Your task to perform on an android device: check battery use Image 0: 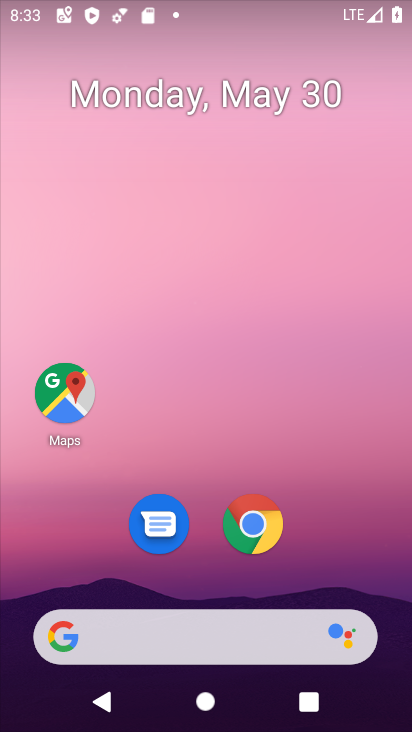
Step 0: drag from (311, 528) to (362, 1)
Your task to perform on an android device: check battery use Image 1: 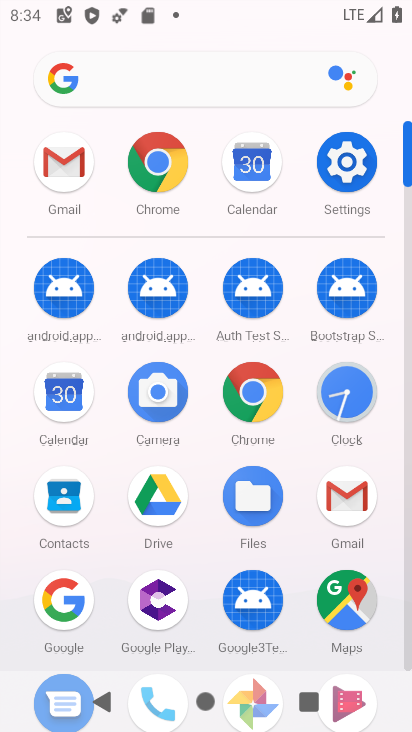
Step 1: click (341, 169)
Your task to perform on an android device: check battery use Image 2: 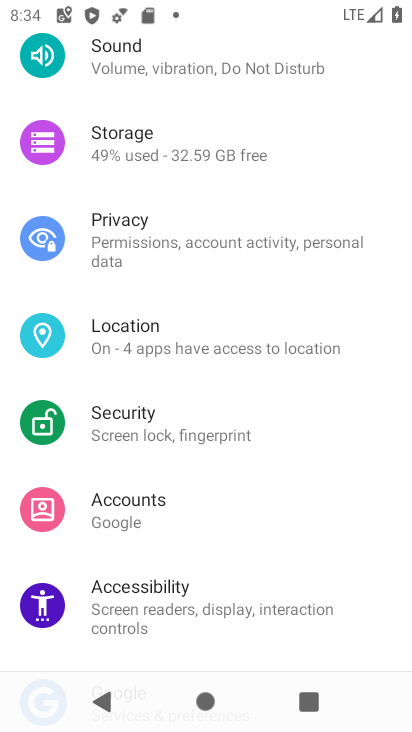
Step 2: drag from (223, 188) to (224, 497)
Your task to perform on an android device: check battery use Image 3: 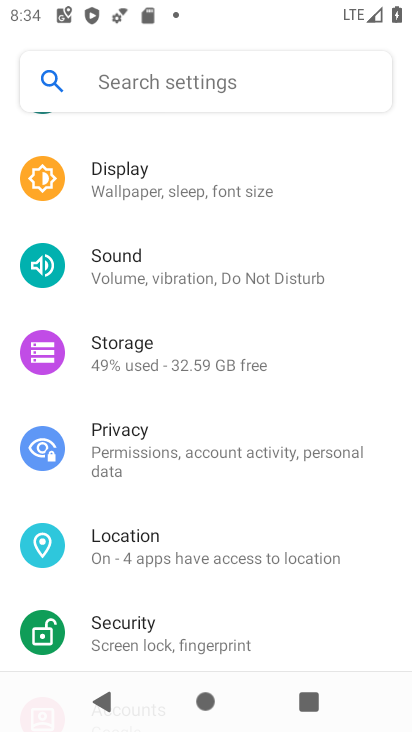
Step 3: drag from (216, 218) to (198, 316)
Your task to perform on an android device: check battery use Image 4: 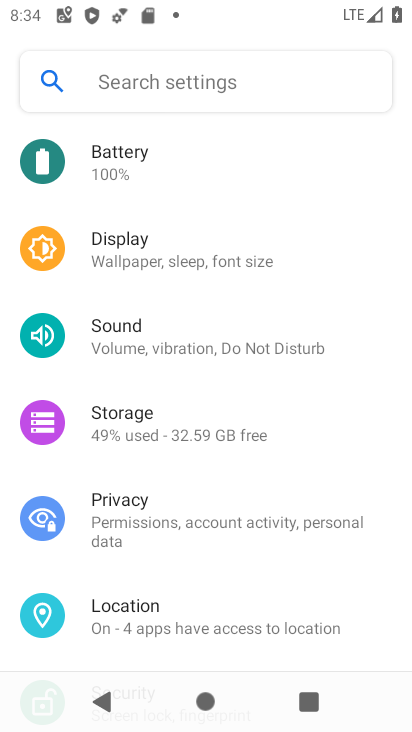
Step 4: click (133, 166)
Your task to perform on an android device: check battery use Image 5: 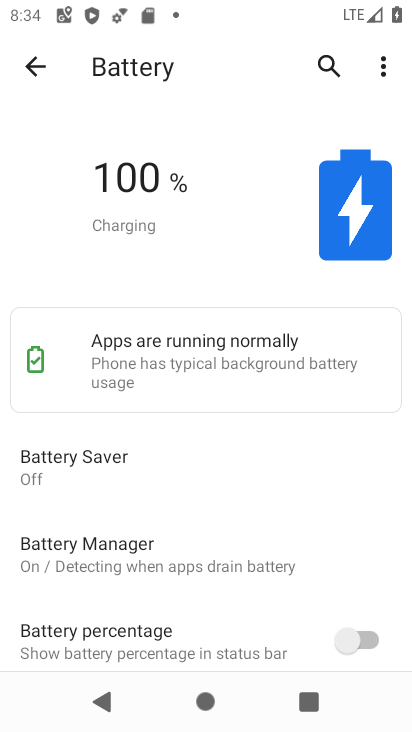
Step 5: click (383, 62)
Your task to perform on an android device: check battery use Image 6: 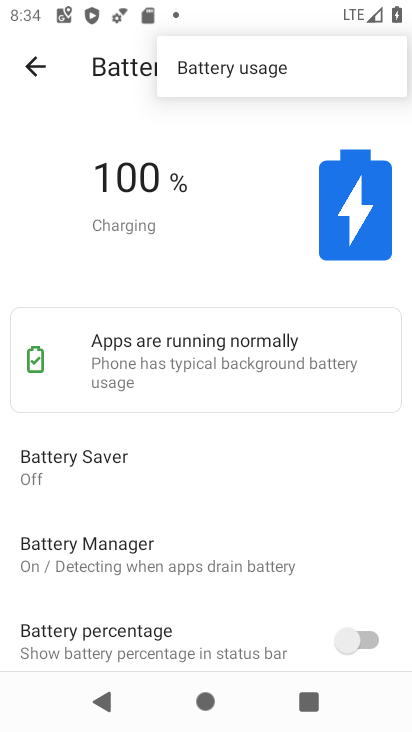
Step 6: click (305, 61)
Your task to perform on an android device: check battery use Image 7: 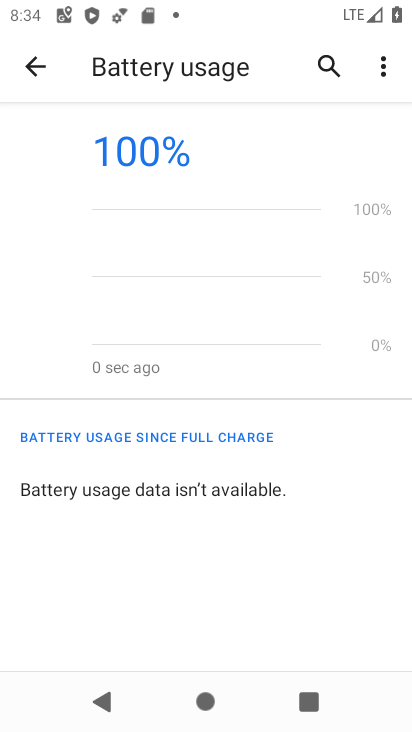
Step 7: task complete